Your task to perform on an android device: toggle translation in the chrome app Image 0: 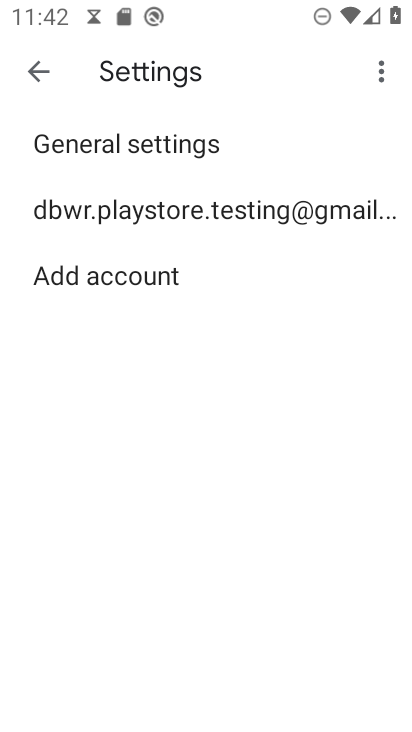
Step 0: press home button
Your task to perform on an android device: toggle translation in the chrome app Image 1: 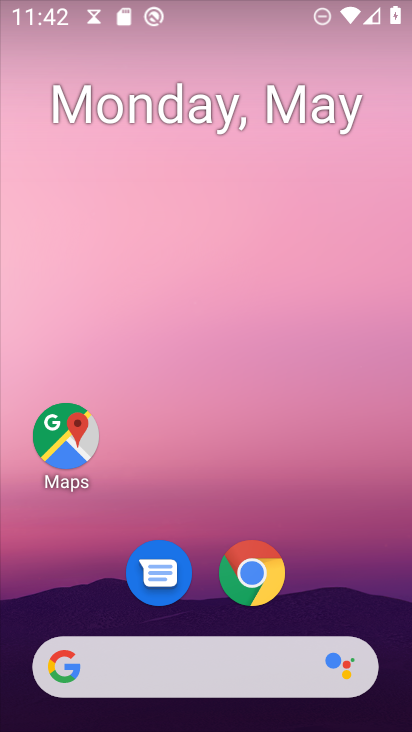
Step 1: click (257, 583)
Your task to perform on an android device: toggle translation in the chrome app Image 2: 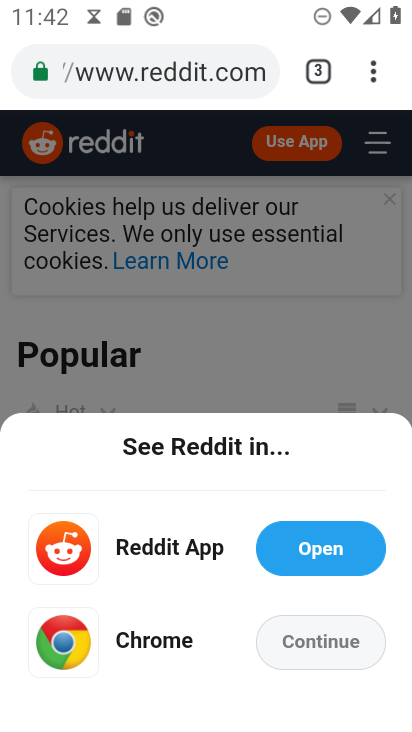
Step 2: click (373, 72)
Your task to perform on an android device: toggle translation in the chrome app Image 3: 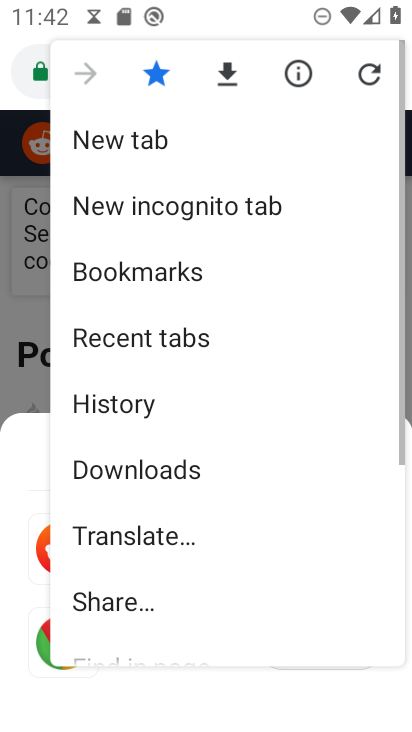
Step 3: drag from (208, 582) to (162, 208)
Your task to perform on an android device: toggle translation in the chrome app Image 4: 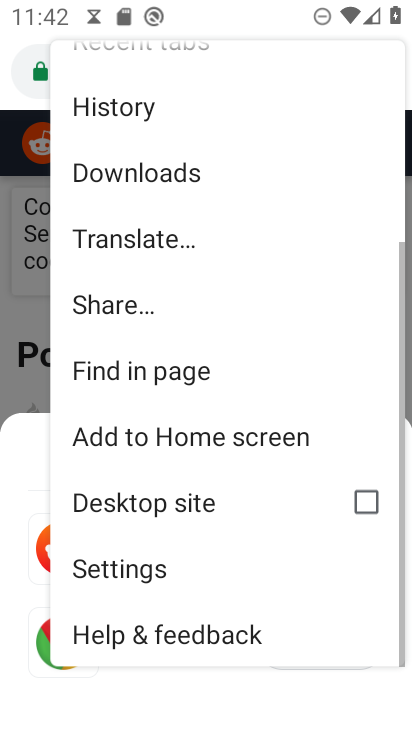
Step 4: click (143, 562)
Your task to perform on an android device: toggle translation in the chrome app Image 5: 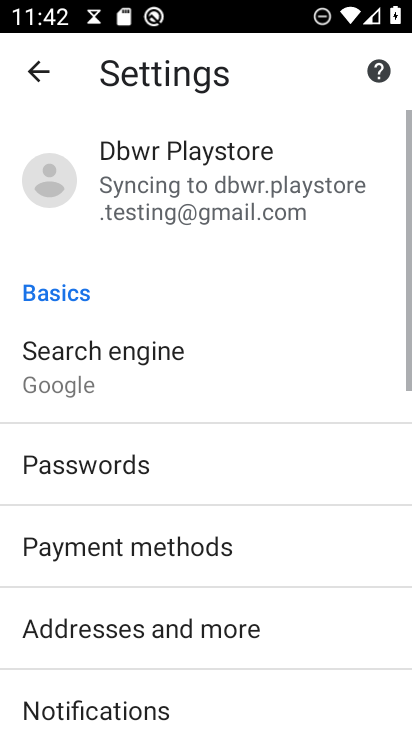
Step 5: drag from (225, 642) to (196, 149)
Your task to perform on an android device: toggle translation in the chrome app Image 6: 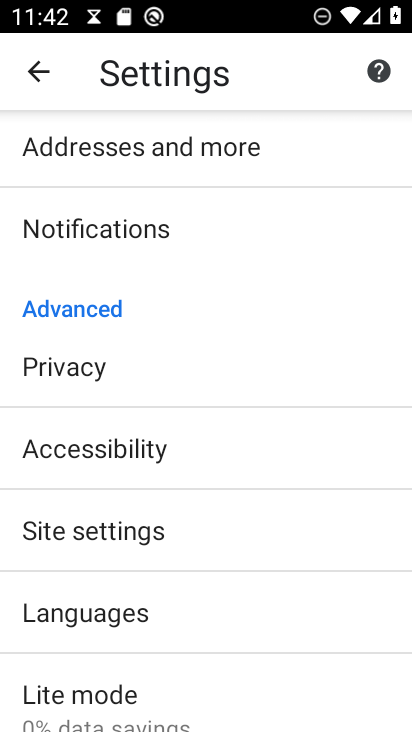
Step 6: click (139, 628)
Your task to perform on an android device: toggle translation in the chrome app Image 7: 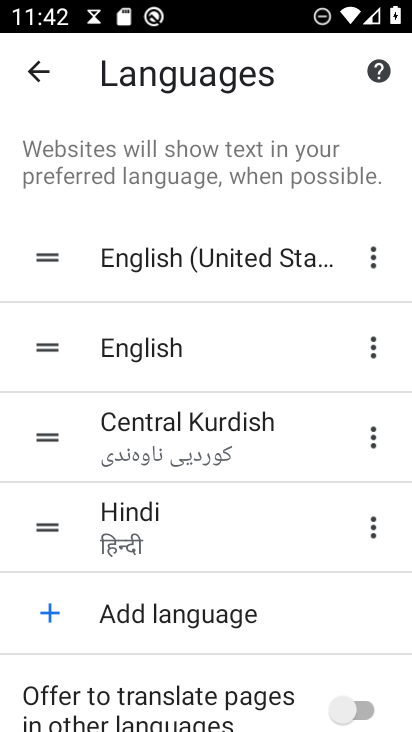
Step 7: click (350, 704)
Your task to perform on an android device: toggle translation in the chrome app Image 8: 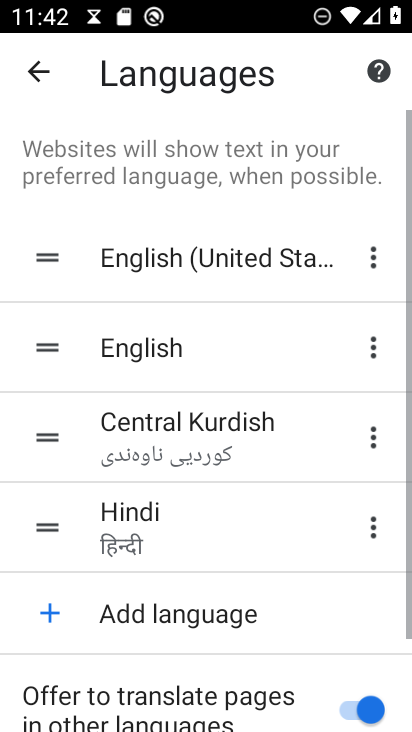
Step 8: task complete